Your task to perform on an android device: Open settings Image 0: 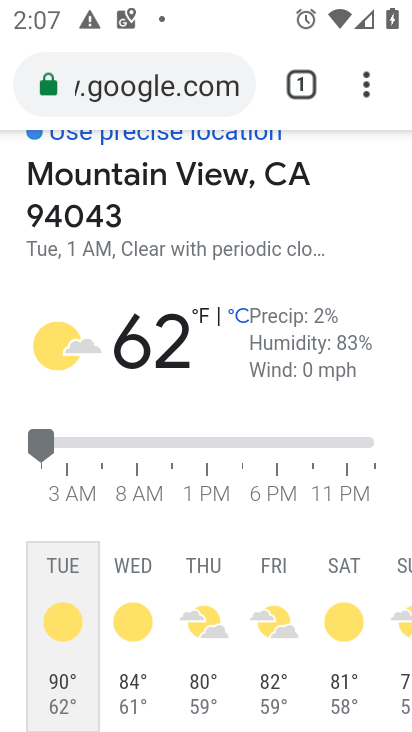
Step 0: press home button
Your task to perform on an android device: Open settings Image 1: 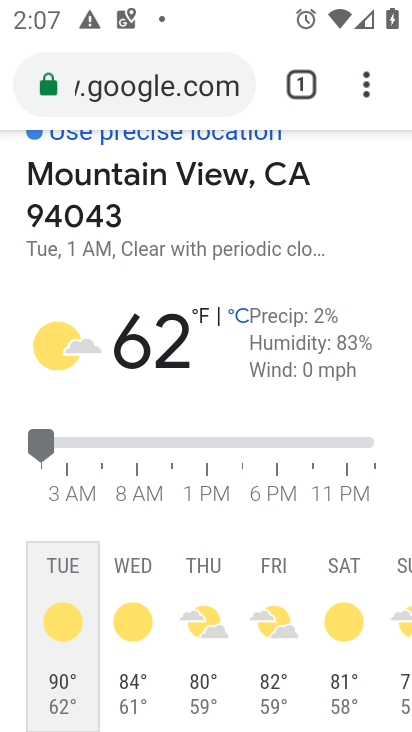
Step 1: press home button
Your task to perform on an android device: Open settings Image 2: 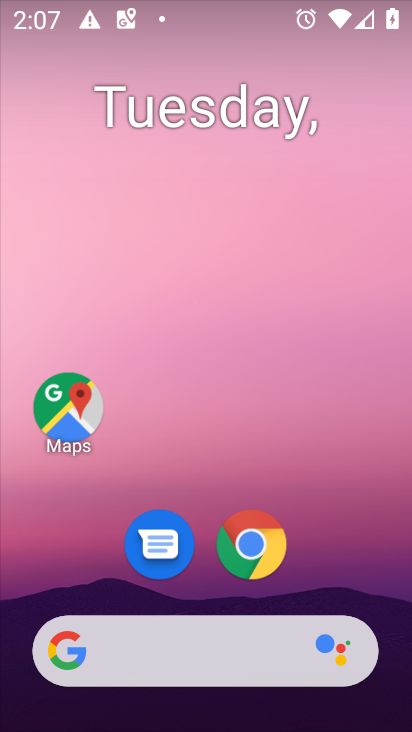
Step 2: drag from (314, 474) to (197, 111)
Your task to perform on an android device: Open settings Image 3: 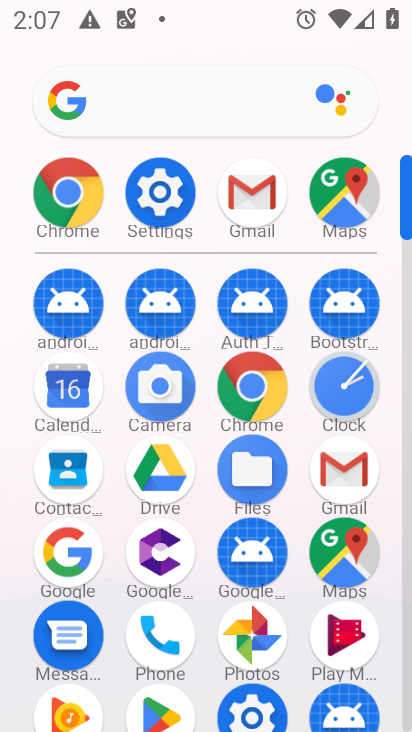
Step 3: click (154, 182)
Your task to perform on an android device: Open settings Image 4: 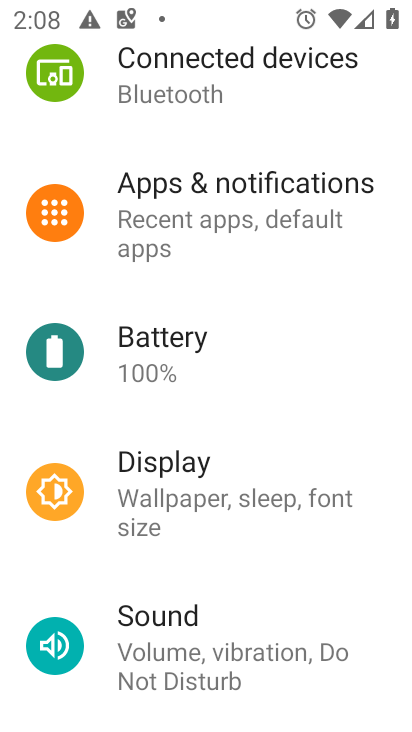
Step 4: task complete